Your task to perform on an android device: Open the web browser Image 0: 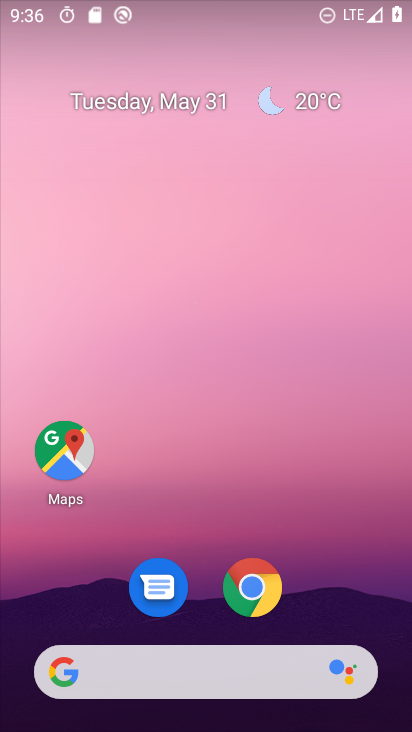
Step 0: click (156, 676)
Your task to perform on an android device: Open the web browser Image 1: 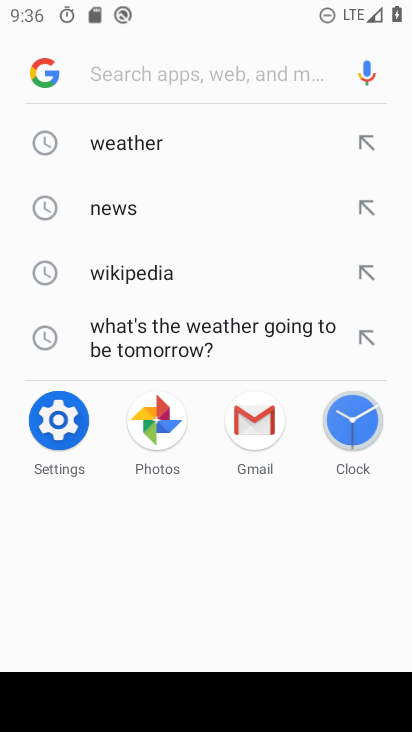
Step 1: task complete